Your task to perform on an android device: Open Chrome and go to the settings page Image 0: 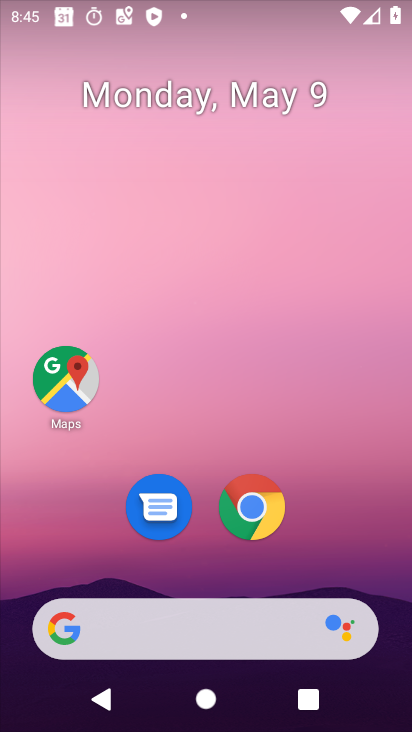
Step 0: drag from (285, 669) to (180, 204)
Your task to perform on an android device: Open Chrome and go to the settings page Image 1: 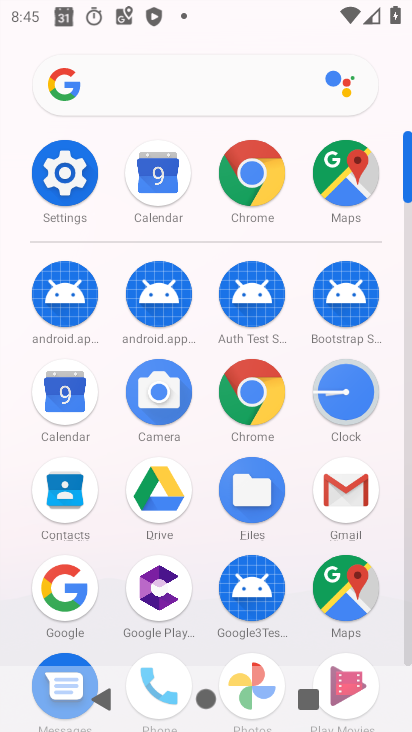
Step 1: click (239, 398)
Your task to perform on an android device: Open Chrome and go to the settings page Image 2: 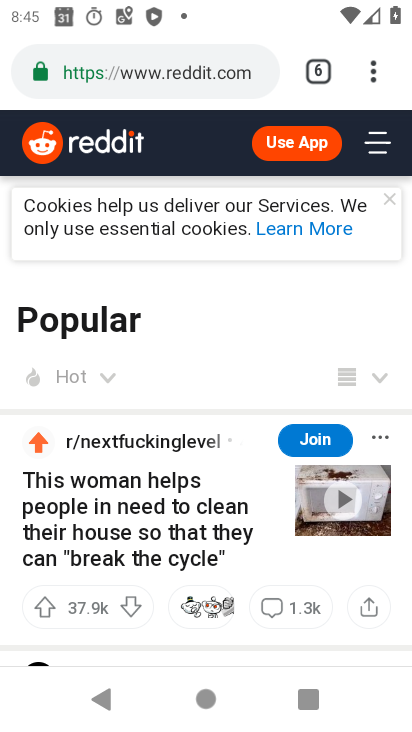
Step 2: click (371, 90)
Your task to perform on an android device: Open Chrome and go to the settings page Image 3: 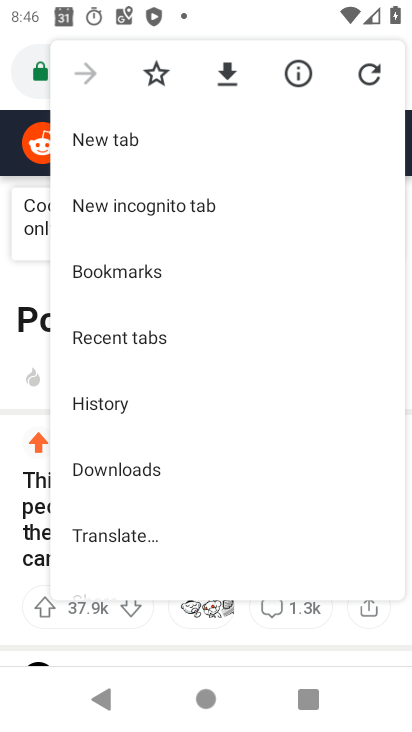
Step 3: drag from (145, 550) to (182, 240)
Your task to perform on an android device: Open Chrome and go to the settings page Image 4: 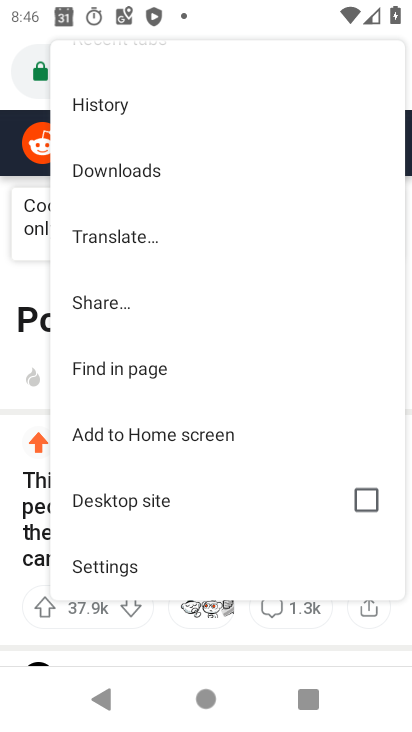
Step 4: click (114, 563)
Your task to perform on an android device: Open Chrome and go to the settings page Image 5: 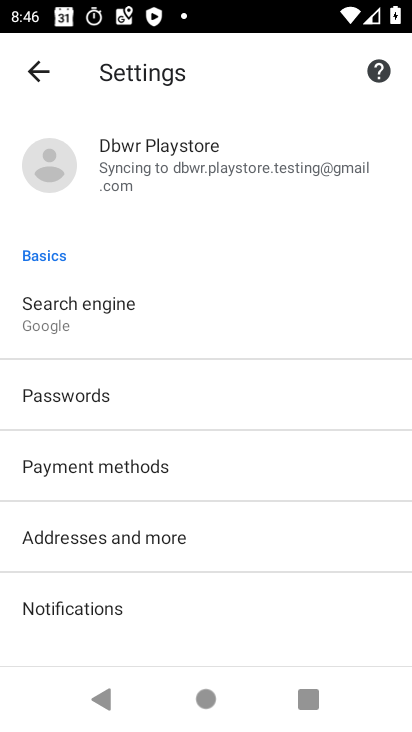
Step 5: task complete